Your task to perform on an android device: turn on improve location accuracy Image 0: 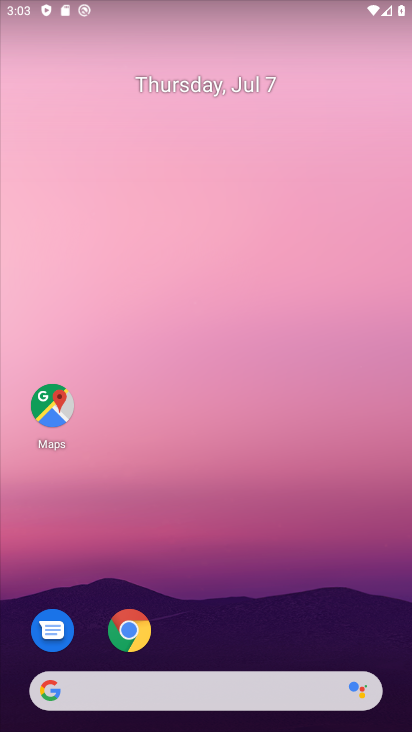
Step 0: drag from (337, 609) to (360, 120)
Your task to perform on an android device: turn on improve location accuracy Image 1: 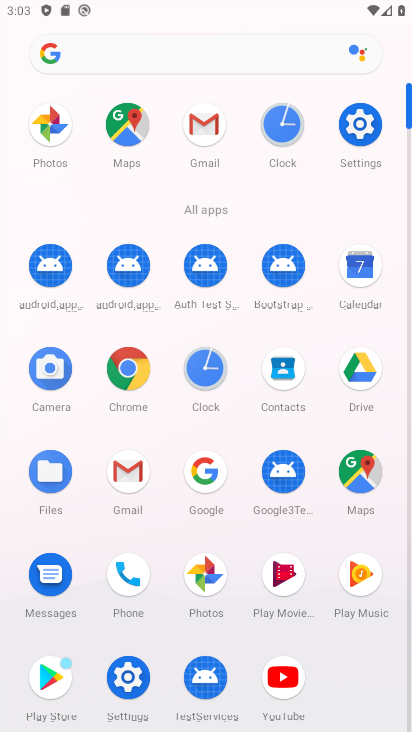
Step 1: click (355, 122)
Your task to perform on an android device: turn on improve location accuracy Image 2: 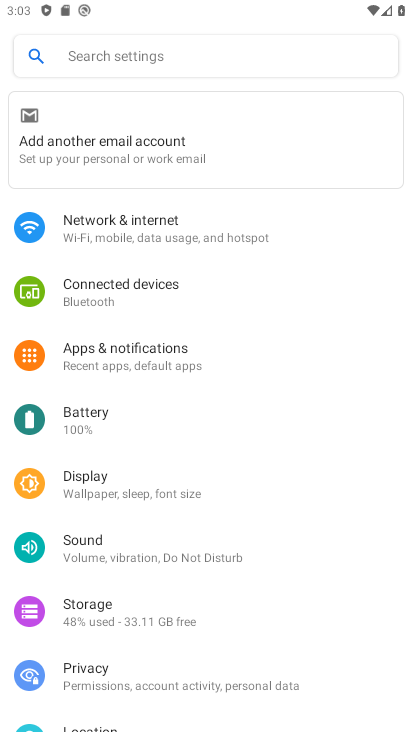
Step 2: drag from (322, 408) to (331, 318)
Your task to perform on an android device: turn on improve location accuracy Image 3: 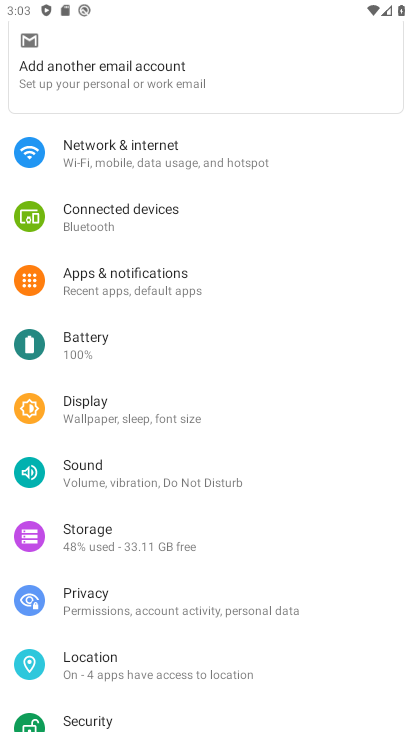
Step 3: drag from (342, 439) to (341, 348)
Your task to perform on an android device: turn on improve location accuracy Image 4: 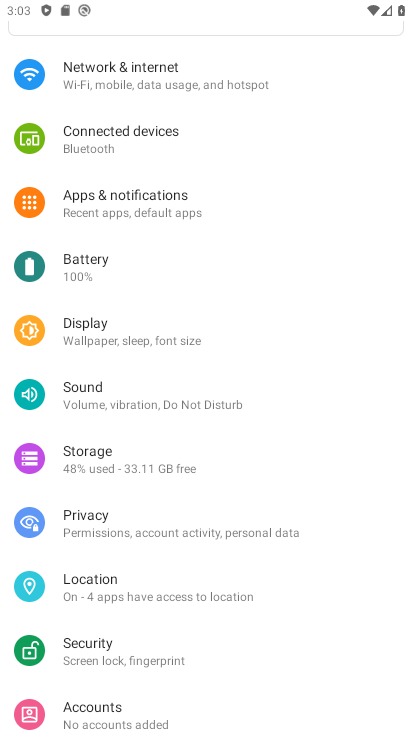
Step 4: drag from (340, 473) to (351, 364)
Your task to perform on an android device: turn on improve location accuracy Image 5: 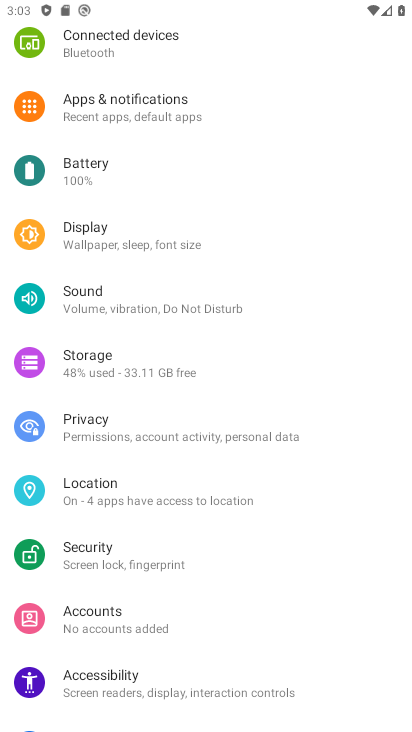
Step 5: drag from (346, 509) to (346, 398)
Your task to perform on an android device: turn on improve location accuracy Image 6: 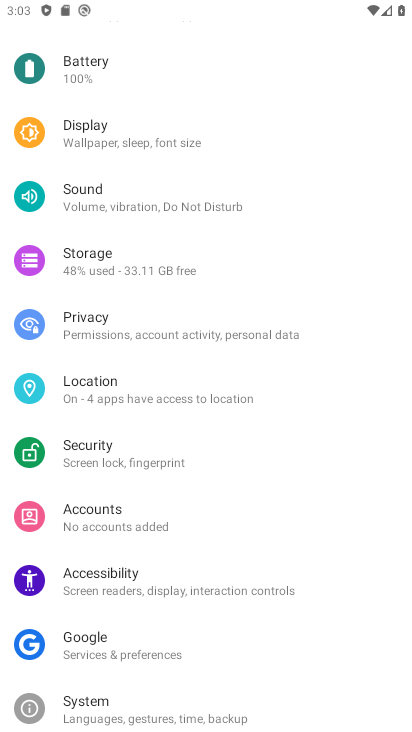
Step 6: drag from (346, 502) to (356, 411)
Your task to perform on an android device: turn on improve location accuracy Image 7: 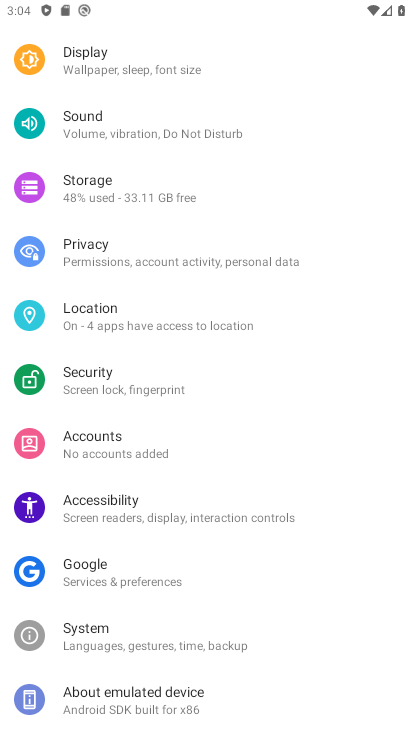
Step 7: click (269, 326)
Your task to perform on an android device: turn on improve location accuracy Image 8: 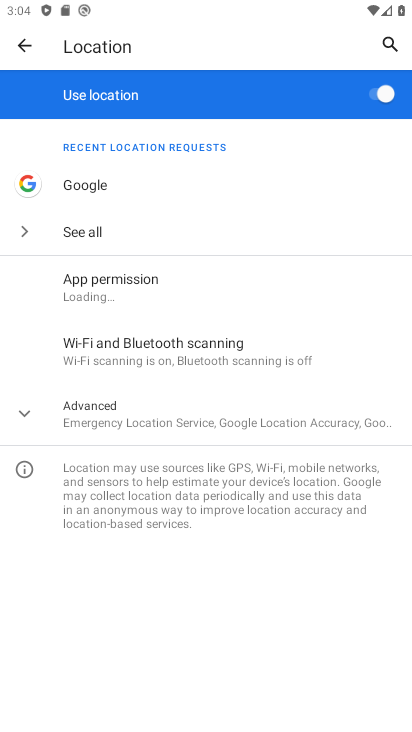
Step 8: click (328, 418)
Your task to perform on an android device: turn on improve location accuracy Image 9: 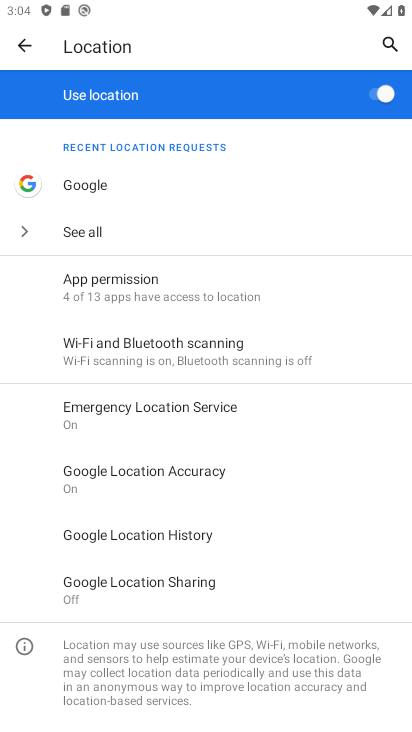
Step 9: click (219, 473)
Your task to perform on an android device: turn on improve location accuracy Image 10: 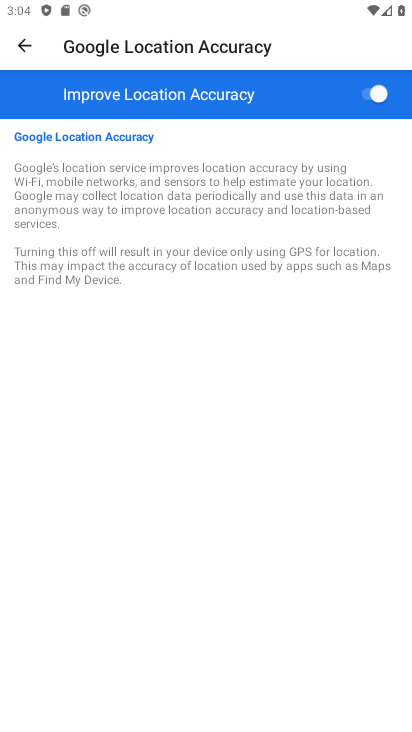
Step 10: task complete